Your task to perform on an android device: Play the last video I watched on Youtube Image 0: 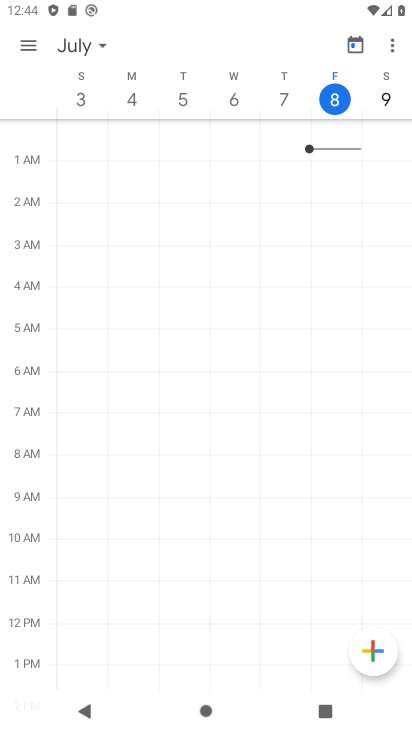
Step 0: press home button
Your task to perform on an android device: Play the last video I watched on Youtube Image 1: 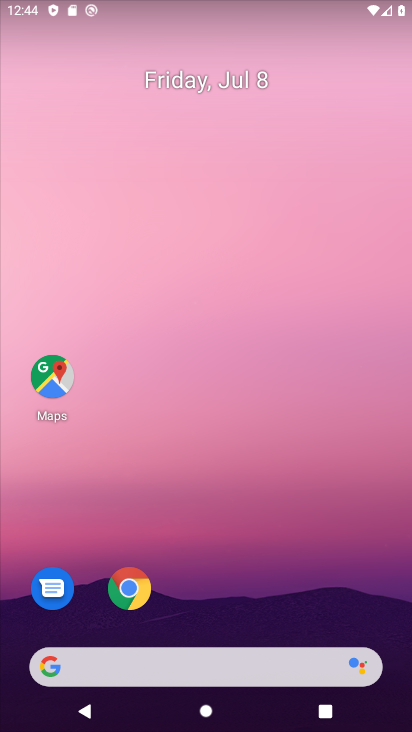
Step 1: drag from (238, 576) to (330, 7)
Your task to perform on an android device: Play the last video I watched on Youtube Image 2: 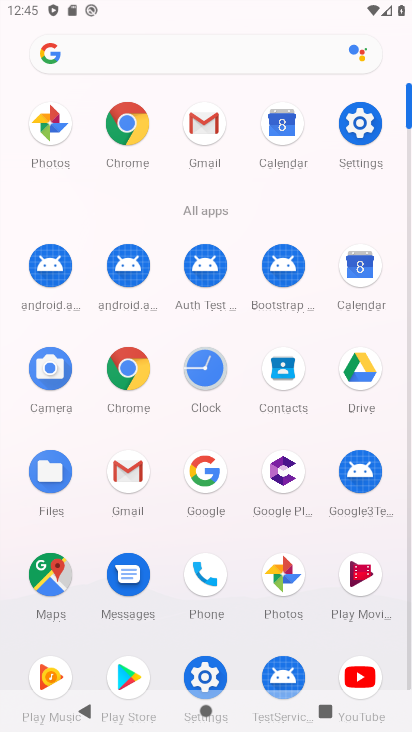
Step 2: click (356, 672)
Your task to perform on an android device: Play the last video I watched on Youtube Image 3: 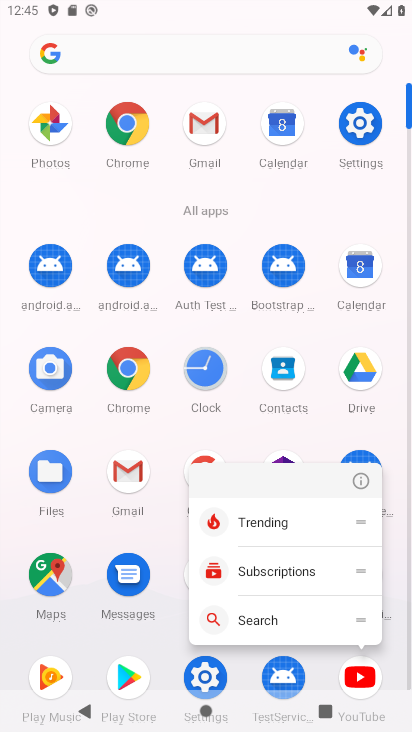
Step 3: click (353, 672)
Your task to perform on an android device: Play the last video I watched on Youtube Image 4: 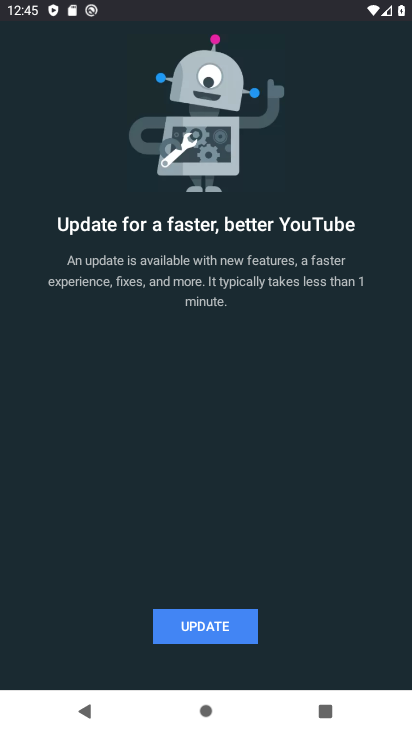
Step 4: click (202, 625)
Your task to perform on an android device: Play the last video I watched on Youtube Image 5: 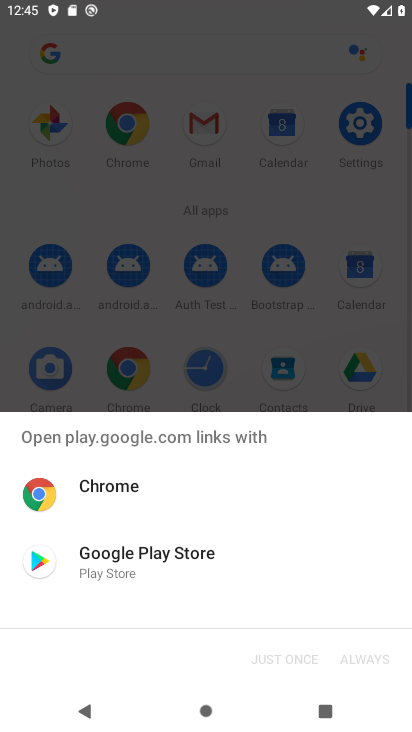
Step 5: click (159, 562)
Your task to perform on an android device: Play the last video I watched on Youtube Image 6: 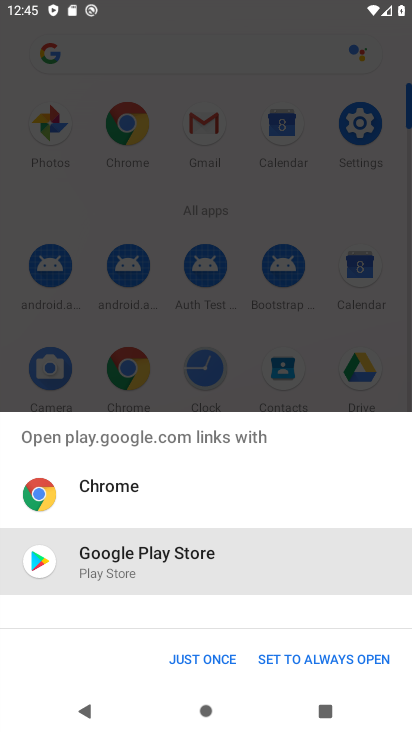
Step 6: click (183, 657)
Your task to perform on an android device: Play the last video I watched on Youtube Image 7: 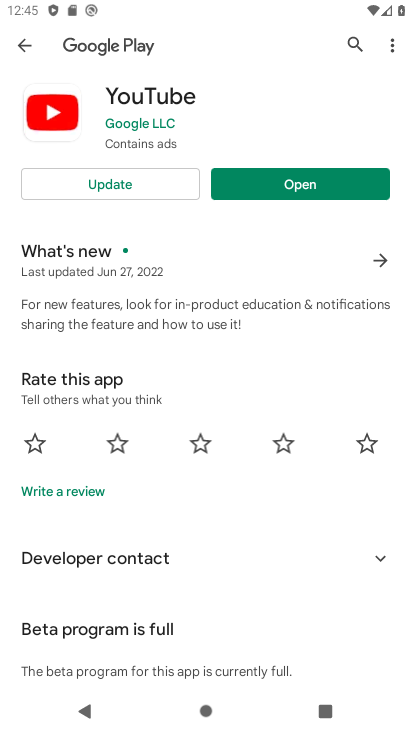
Step 7: click (159, 185)
Your task to perform on an android device: Play the last video I watched on Youtube Image 8: 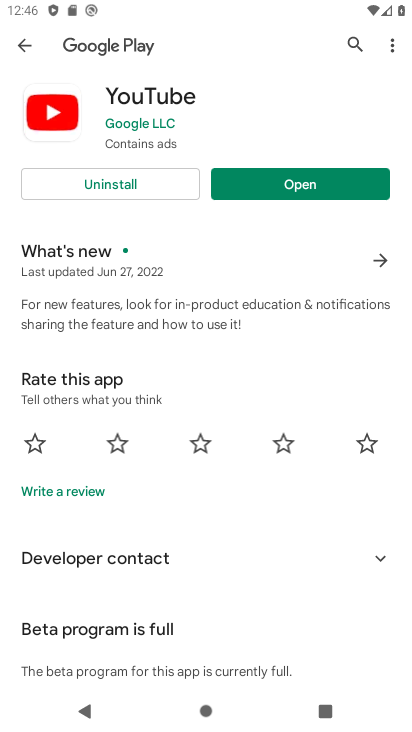
Step 8: click (268, 189)
Your task to perform on an android device: Play the last video I watched on Youtube Image 9: 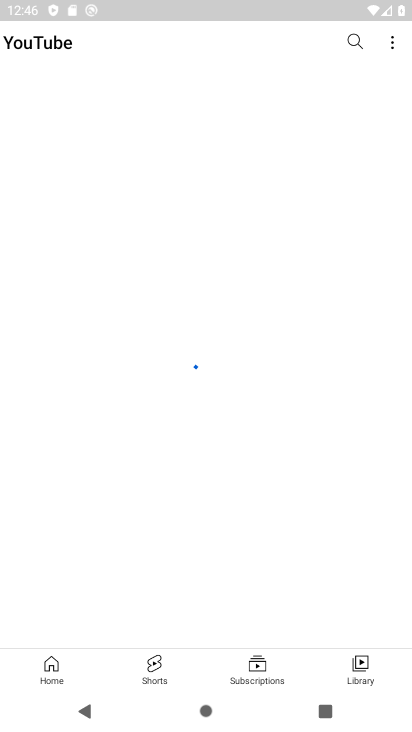
Step 9: click (364, 673)
Your task to perform on an android device: Play the last video I watched on Youtube Image 10: 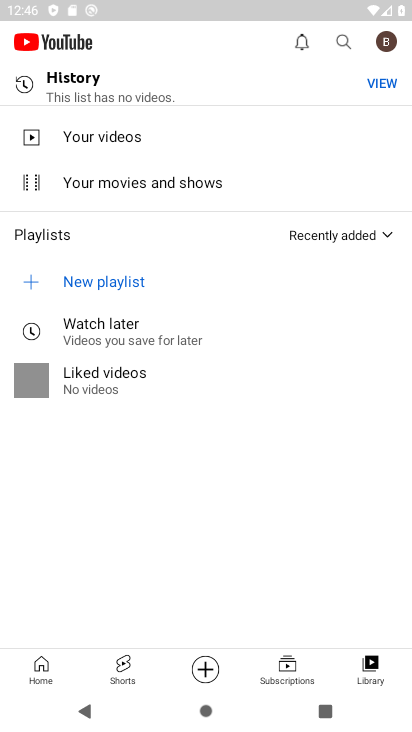
Step 10: task complete